Your task to perform on an android device: Toggle the flashlight Image 0: 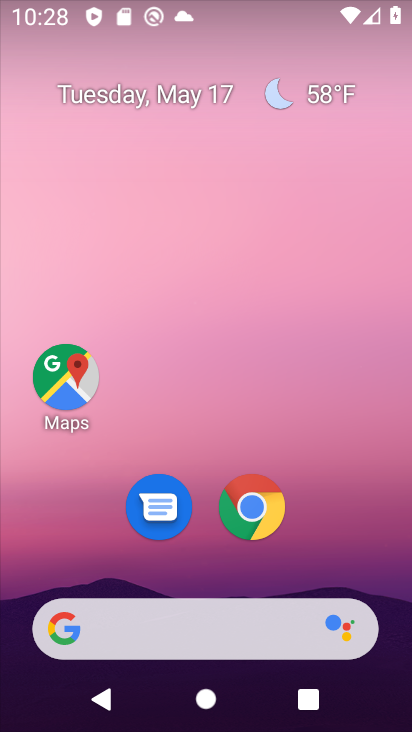
Step 0: drag from (306, 402) to (211, 40)
Your task to perform on an android device: Toggle the flashlight Image 1: 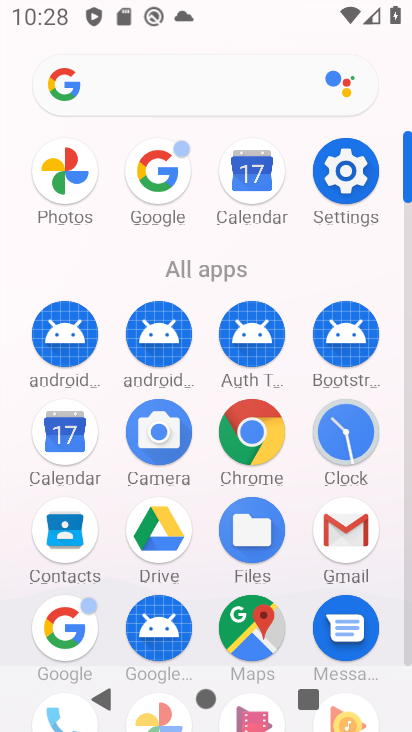
Step 1: click (349, 157)
Your task to perform on an android device: Toggle the flashlight Image 2: 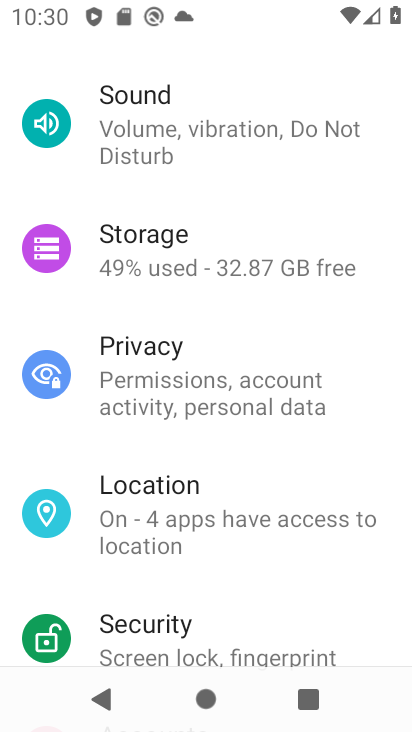
Step 2: click (237, 433)
Your task to perform on an android device: Toggle the flashlight Image 3: 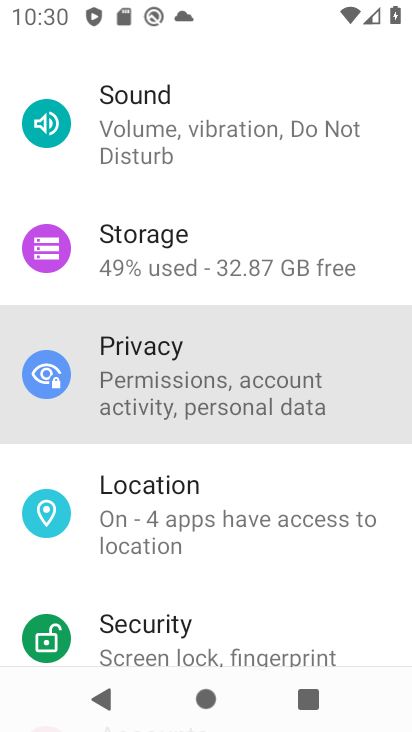
Step 3: click (158, 370)
Your task to perform on an android device: Toggle the flashlight Image 4: 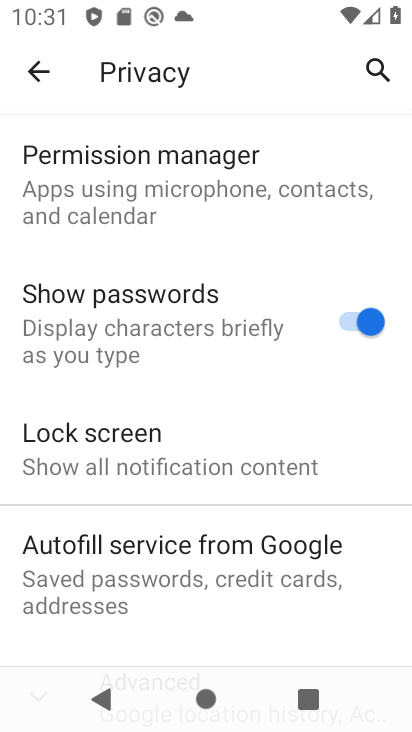
Step 4: task complete